Your task to perform on an android device: check battery use Image 0: 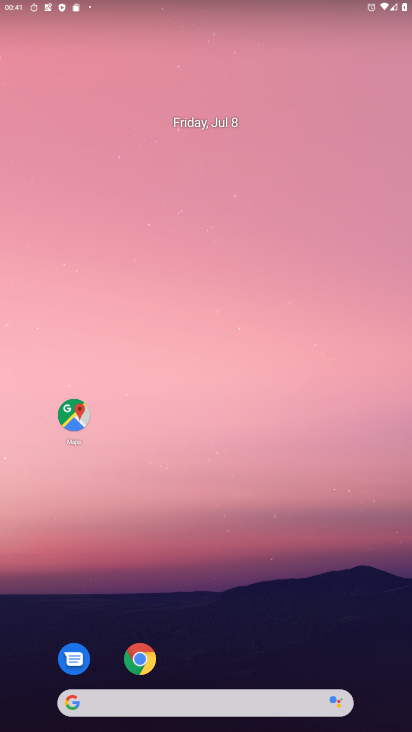
Step 0: drag from (320, 5) to (306, 666)
Your task to perform on an android device: check battery use Image 1: 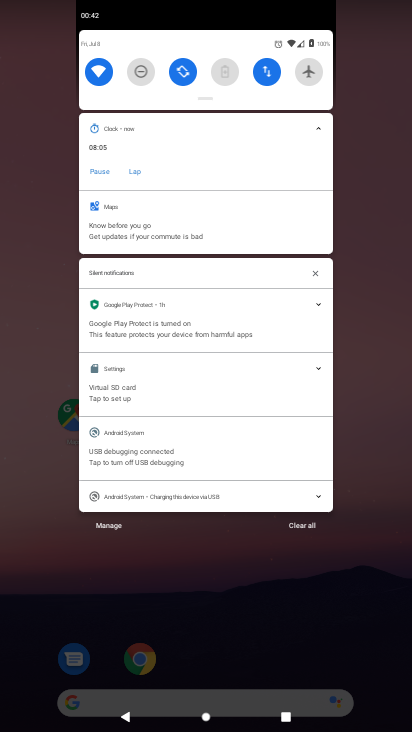
Step 1: click (229, 69)
Your task to perform on an android device: check battery use Image 2: 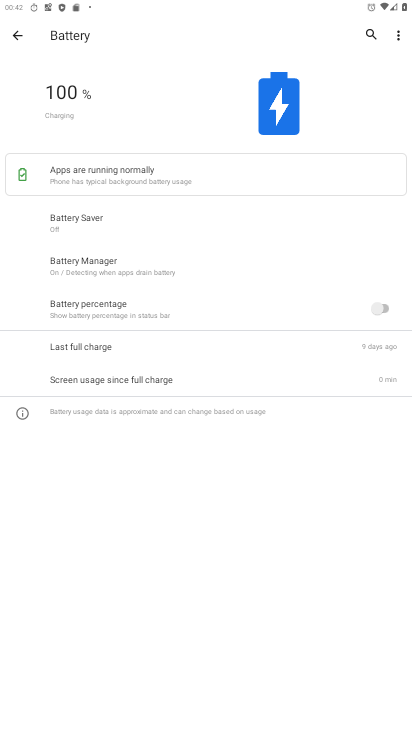
Step 2: click (402, 34)
Your task to perform on an android device: check battery use Image 3: 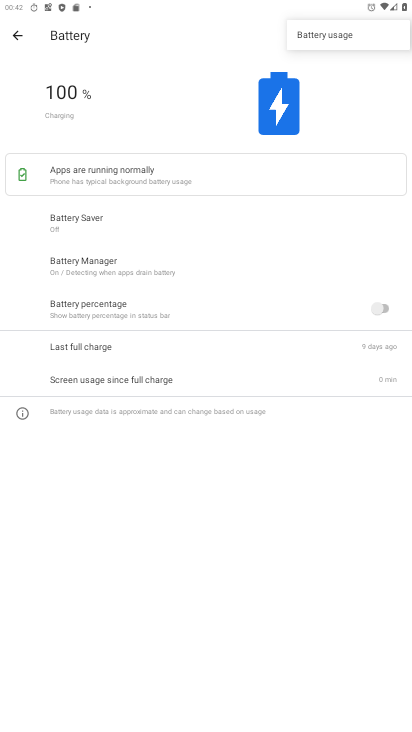
Step 3: click (295, 37)
Your task to perform on an android device: check battery use Image 4: 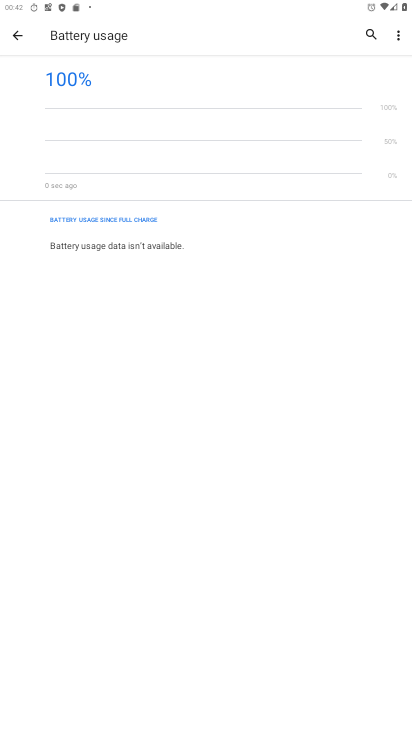
Step 4: task complete